Your task to perform on an android device: empty trash in the gmail app Image 0: 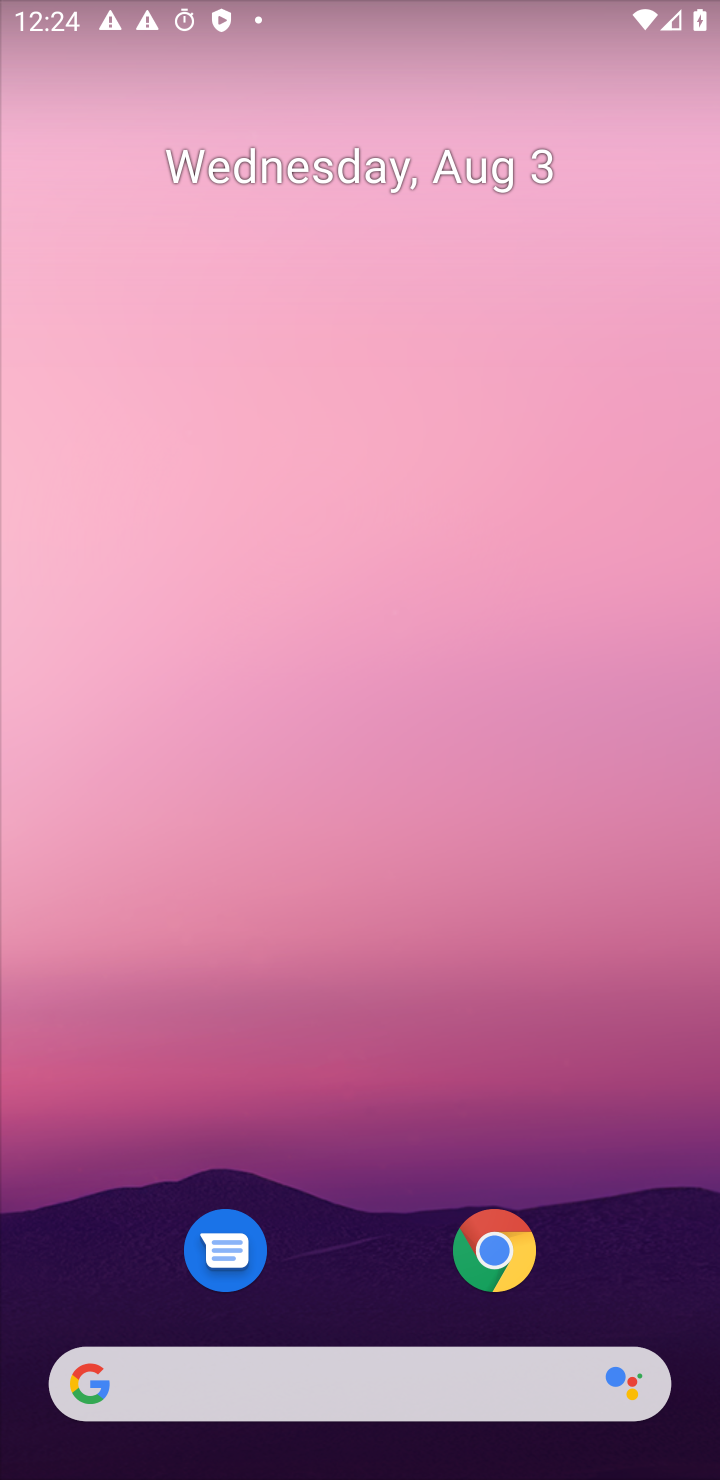
Step 0: drag from (360, 1228) to (360, 6)
Your task to perform on an android device: empty trash in the gmail app Image 1: 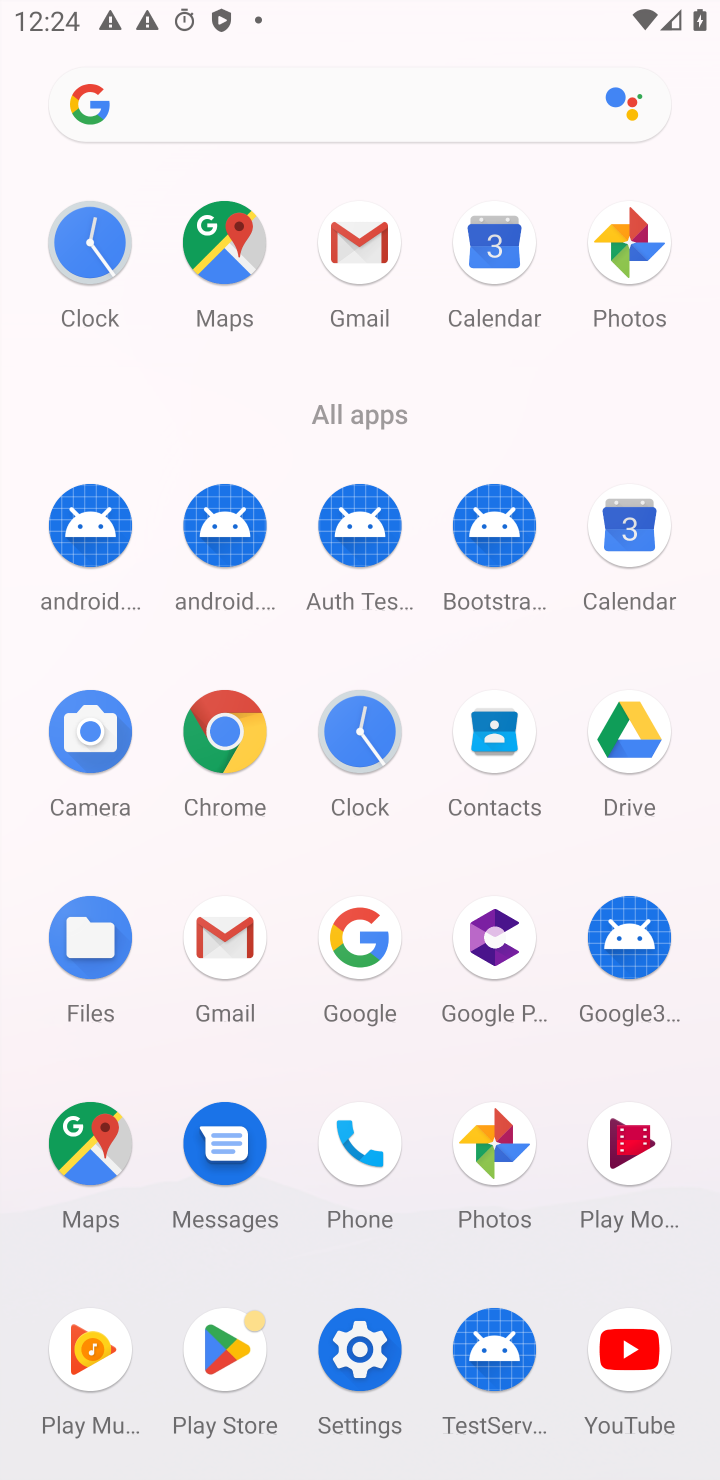
Step 1: click (246, 950)
Your task to perform on an android device: empty trash in the gmail app Image 2: 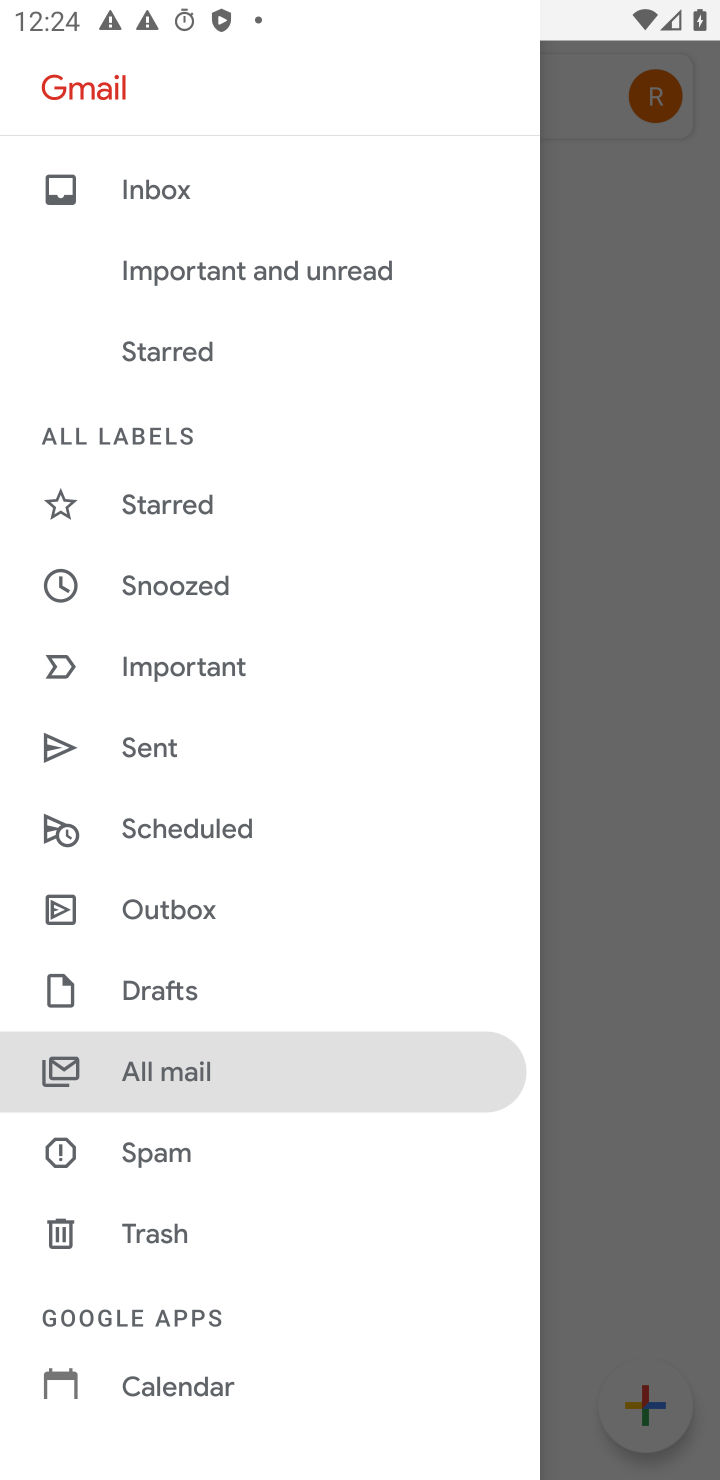
Step 2: click (167, 1236)
Your task to perform on an android device: empty trash in the gmail app Image 3: 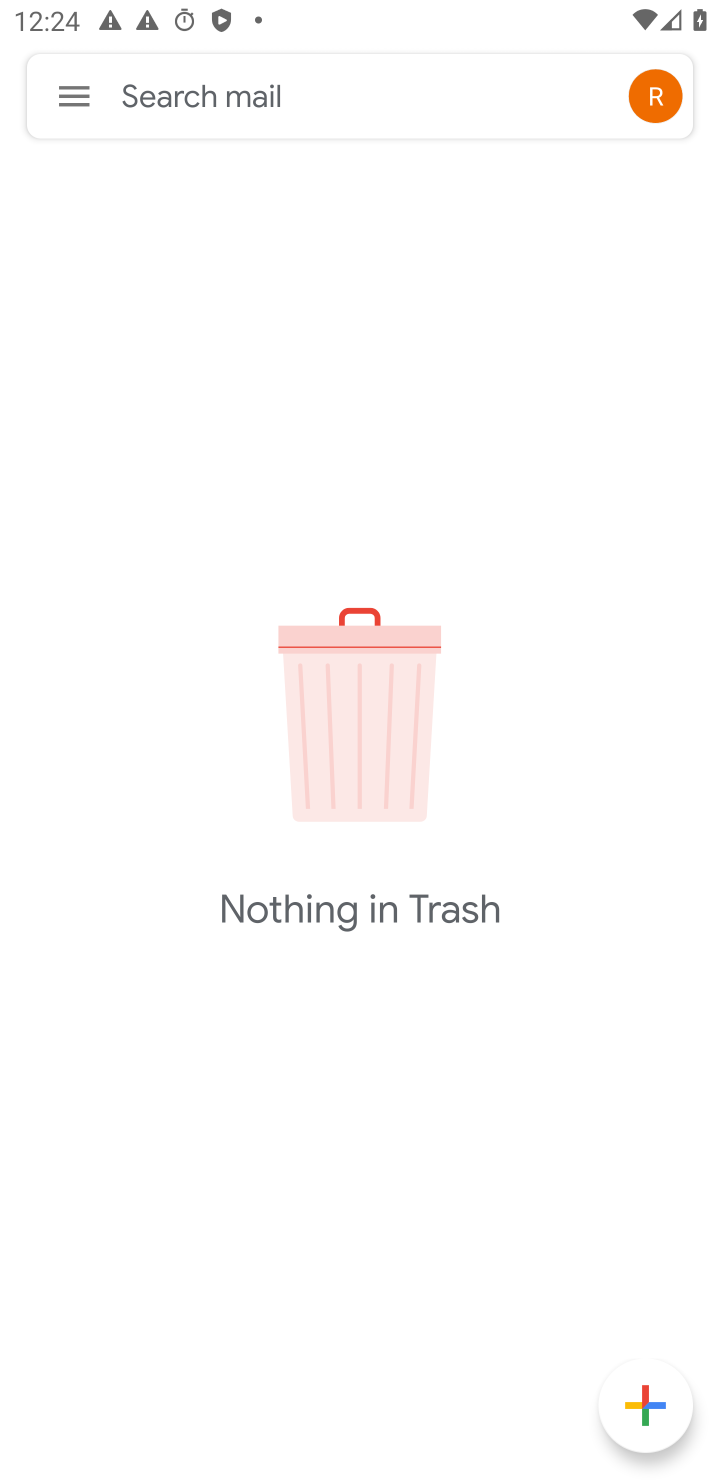
Step 3: task complete